Your task to perform on an android device: turn on translation in the chrome app Image 0: 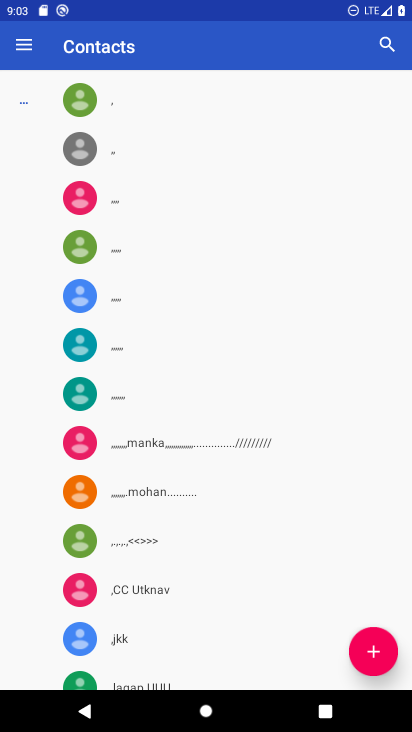
Step 0: press home button
Your task to perform on an android device: turn on translation in the chrome app Image 1: 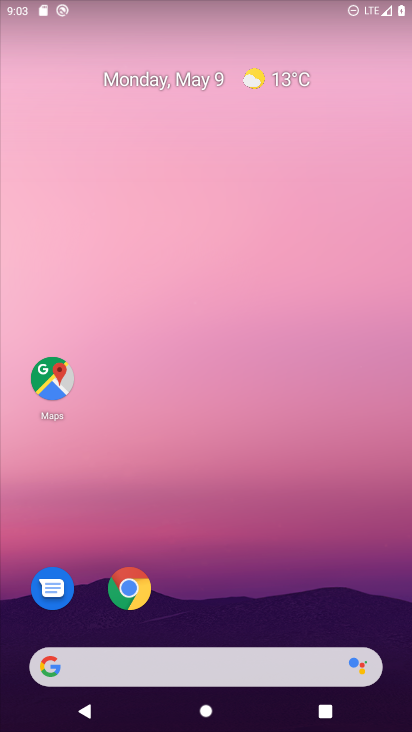
Step 1: click (302, 554)
Your task to perform on an android device: turn on translation in the chrome app Image 2: 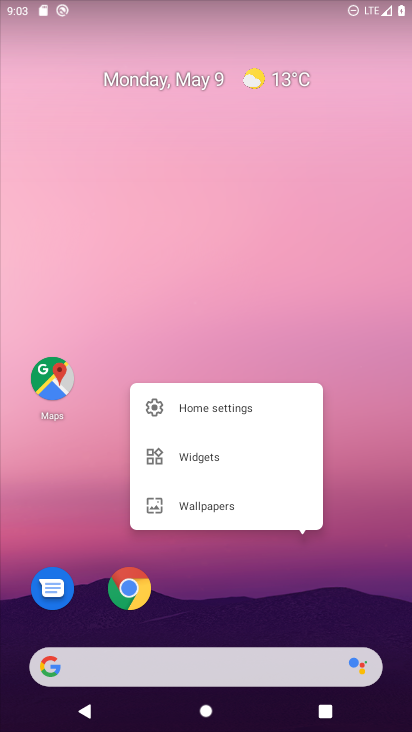
Step 2: click (148, 590)
Your task to perform on an android device: turn on translation in the chrome app Image 3: 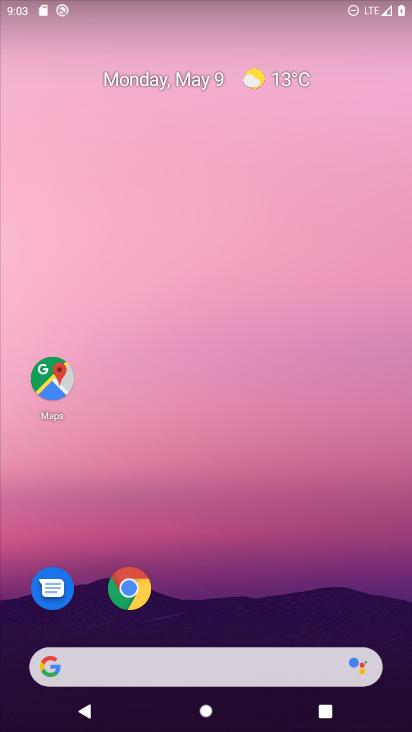
Step 3: click (120, 594)
Your task to perform on an android device: turn on translation in the chrome app Image 4: 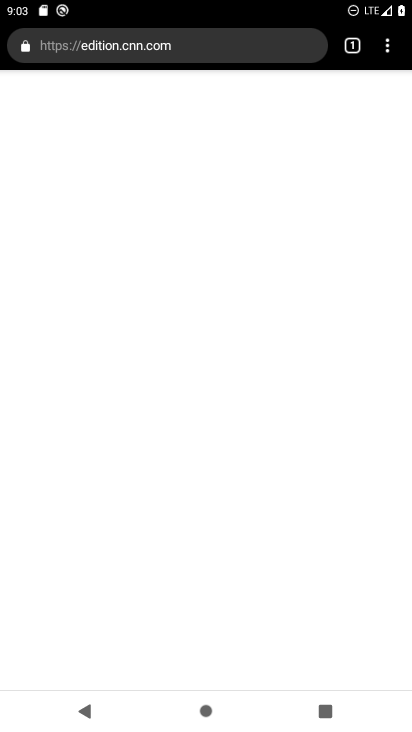
Step 4: click (384, 52)
Your task to perform on an android device: turn on translation in the chrome app Image 5: 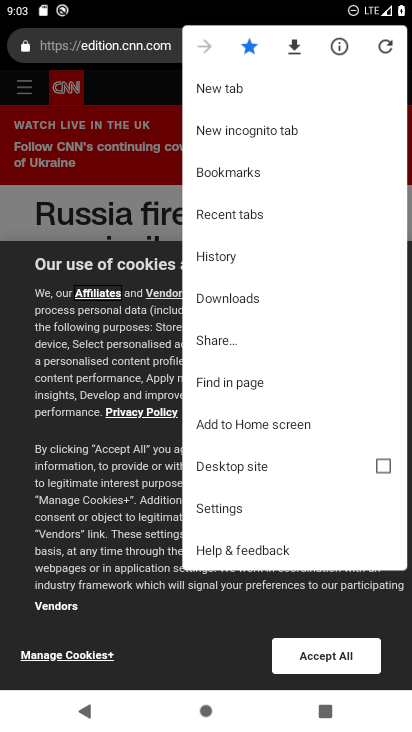
Step 5: click (257, 509)
Your task to perform on an android device: turn on translation in the chrome app Image 6: 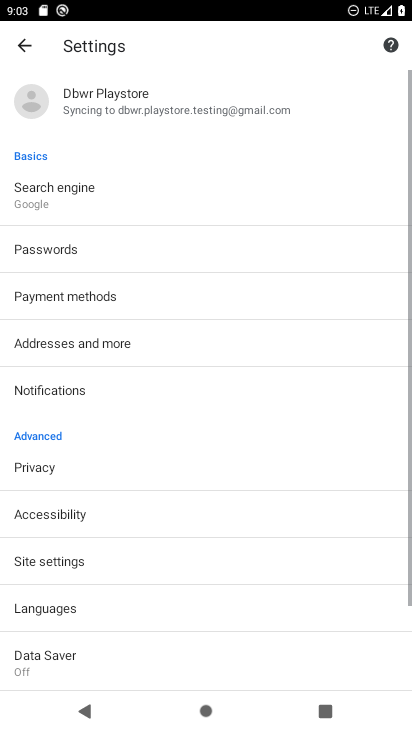
Step 6: drag from (237, 574) to (229, 455)
Your task to perform on an android device: turn on translation in the chrome app Image 7: 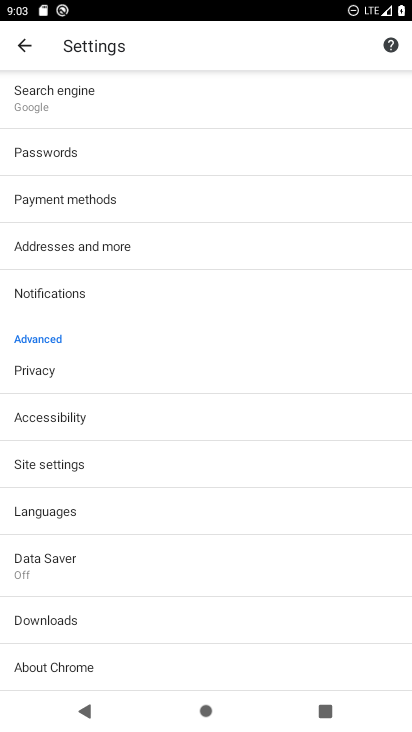
Step 7: click (197, 507)
Your task to perform on an android device: turn on translation in the chrome app Image 8: 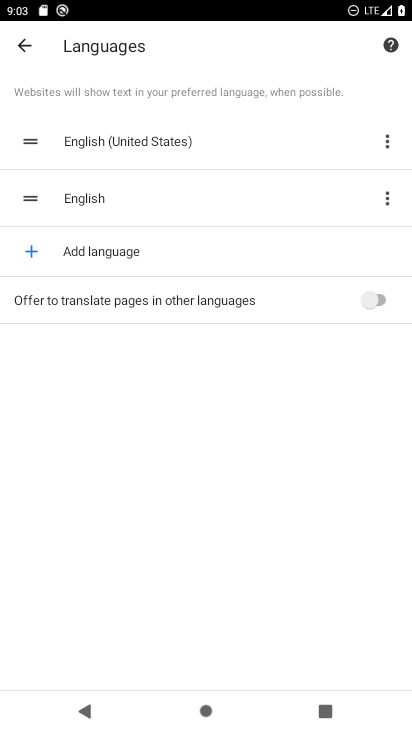
Step 8: click (381, 297)
Your task to perform on an android device: turn on translation in the chrome app Image 9: 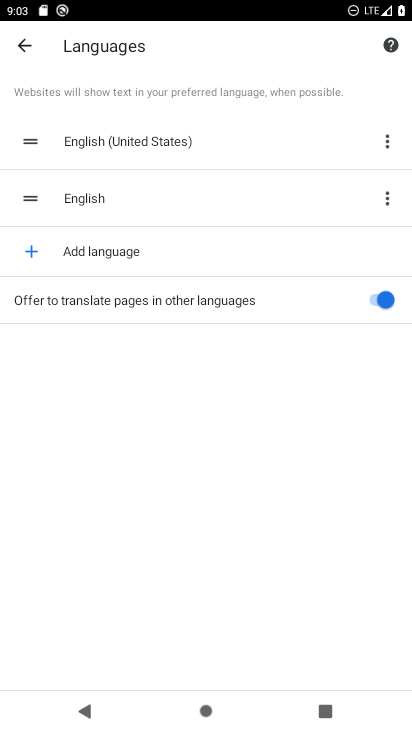
Step 9: task complete